Your task to perform on an android device: change text size in settings app Image 0: 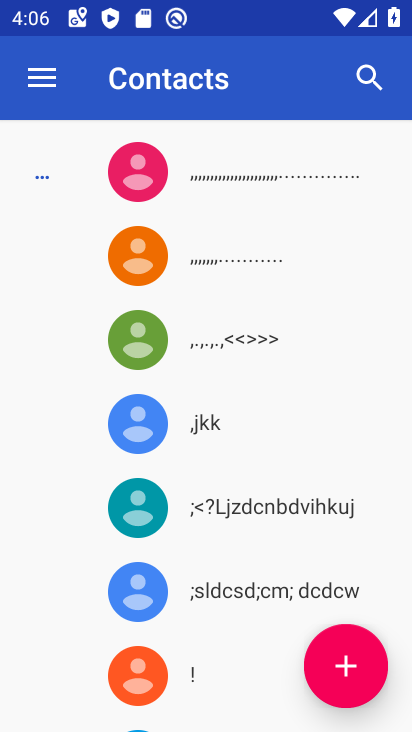
Step 0: press home button
Your task to perform on an android device: change text size in settings app Image 1: 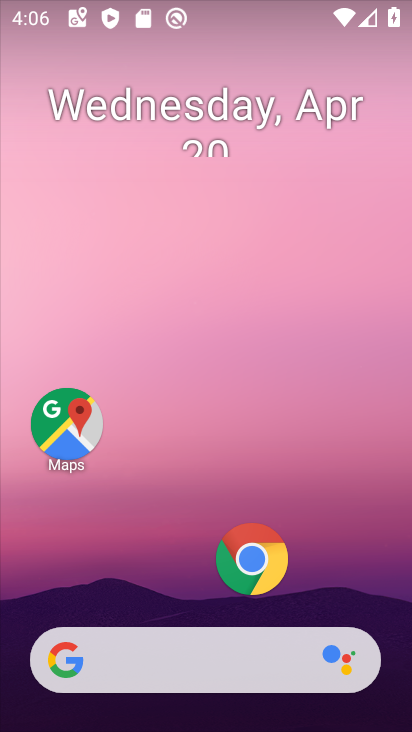
Step 1: drag from (141, 533) to (219, 124)
Your task to perform on an android device: change text size in settings app Image 2: 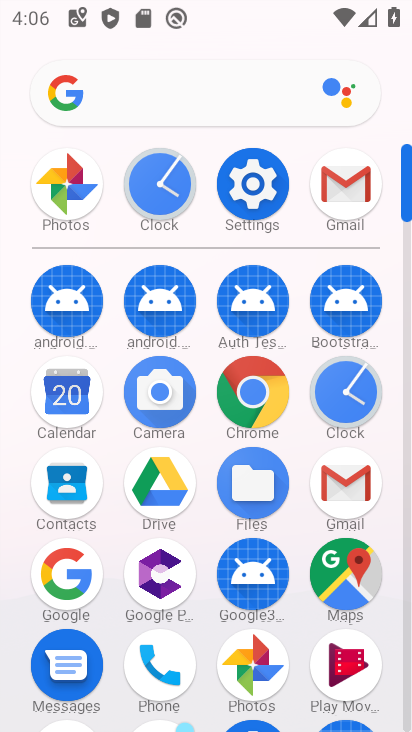
Step 2: click (251, 175)
Your task to perform on an android device: change text size in settings app Image 3: 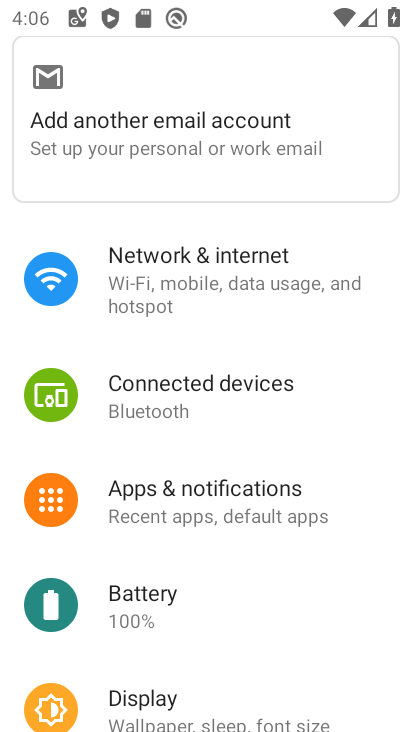
Step 3: drag from (169, 607) to (226, 349)
Your task to perform on an android device: change text size in settings app Image 4: 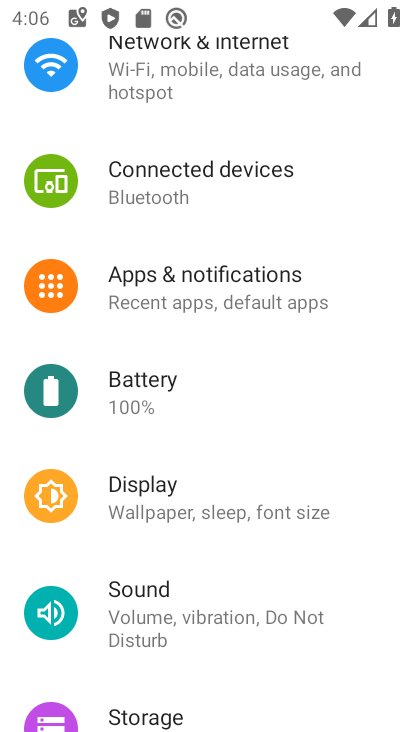
Step 4: click (227, 513)
Your task to perform on an android device: change text size in settings app Image 5: 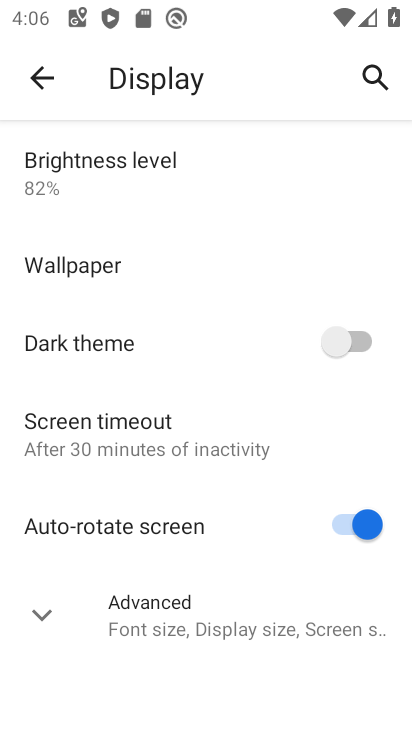
Step 5: click (53, 609)
Your task to perform on an android device: change text size in settings app Image 6: 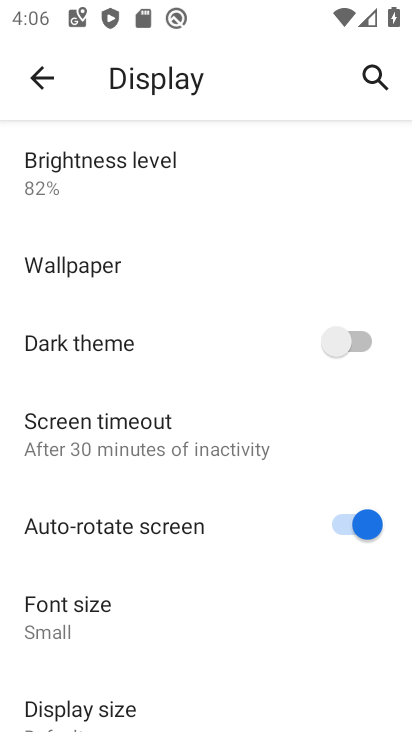
Step 6: drag from (55, 607) to (119, 417)
Your task to perform on an android device: change text size in settings app Image 7: 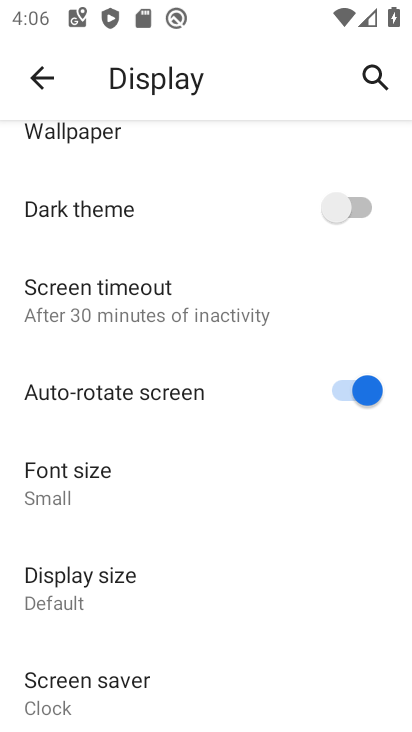
Step 7: click (77, 473)
Your task to perform on an android device: change text size in settings app Image 8: 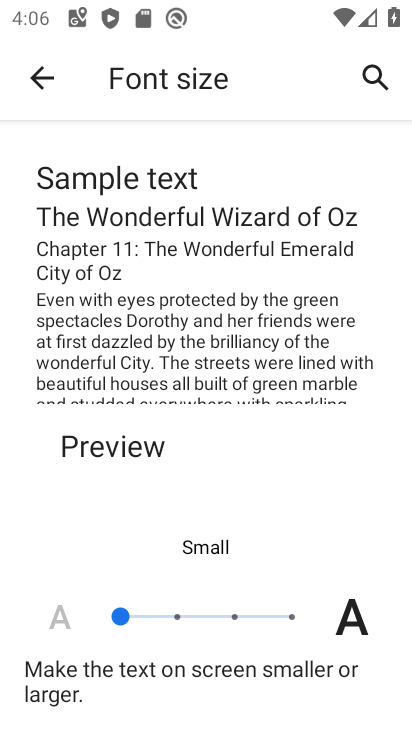
Step 8: click (143, 616)
Your task to perform on an android device: change text size in settings app Image 9: 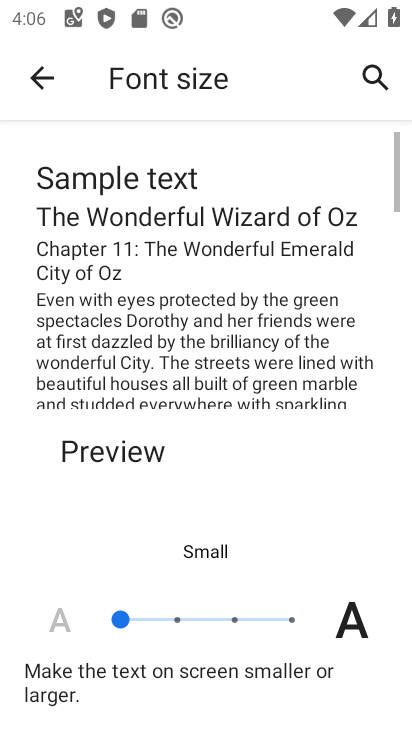
Step 9: task complete